Your task to perform on an android device: Open ESPN.com Image 0: 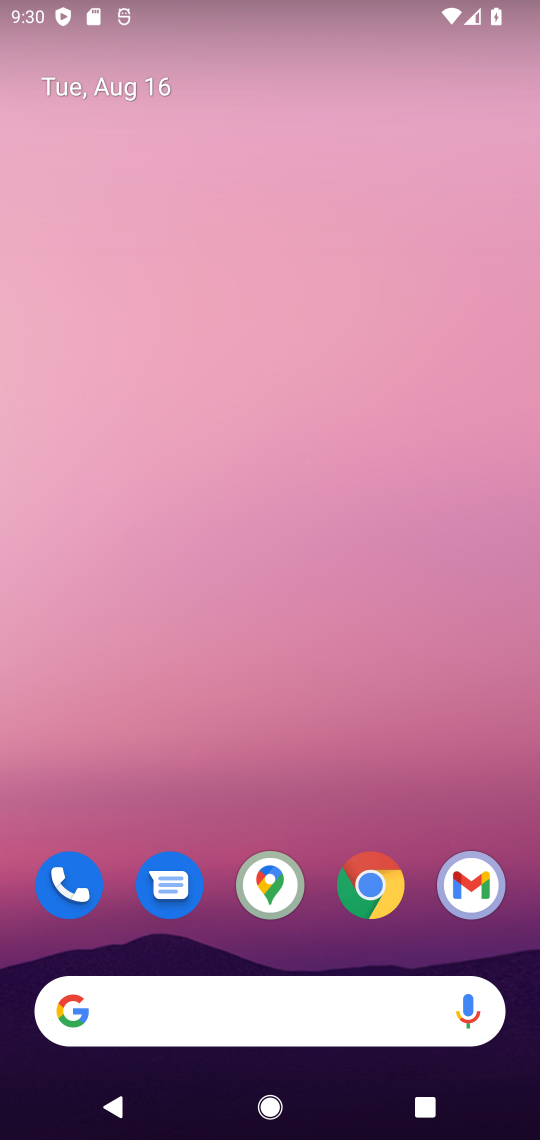
Step 0: click (363, 895)
Your task to perform on an android device: Open ESPN.com Image 1: 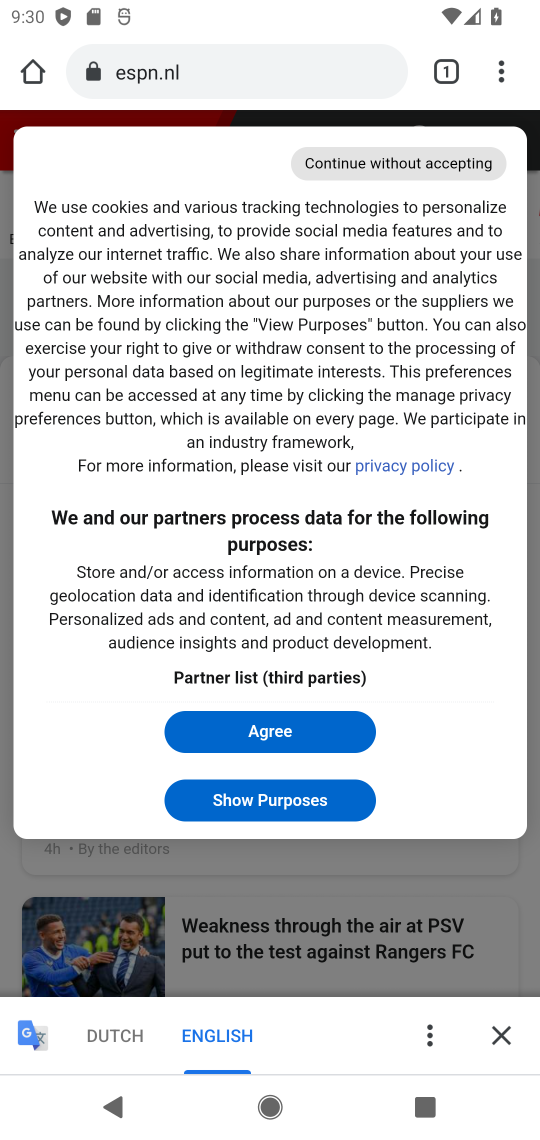
Step 1: task complete